Your task to perform on an android device: Go to settings Image 0: 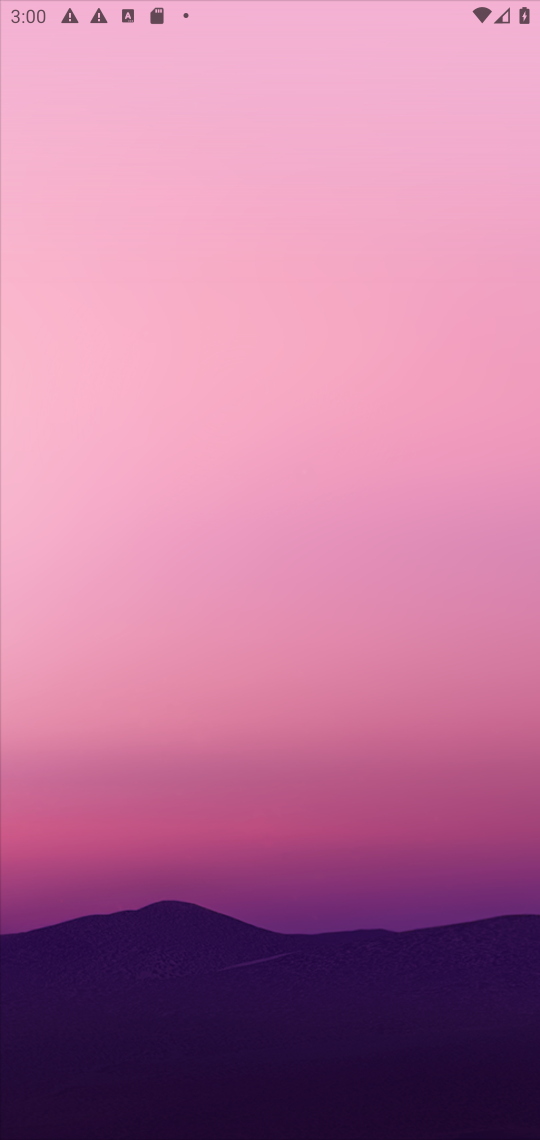
Step 0: click (299, 55)
Your task to perform on an android device: Go to settings Image 1: 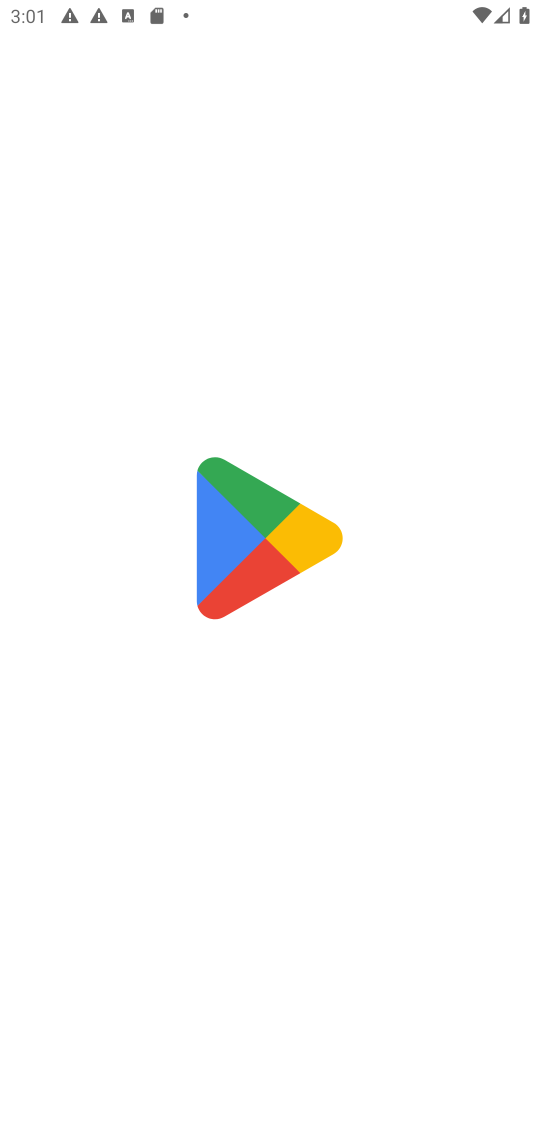
Step 1: press back button
Your task to perform on an android device: Go to settings Image 2: 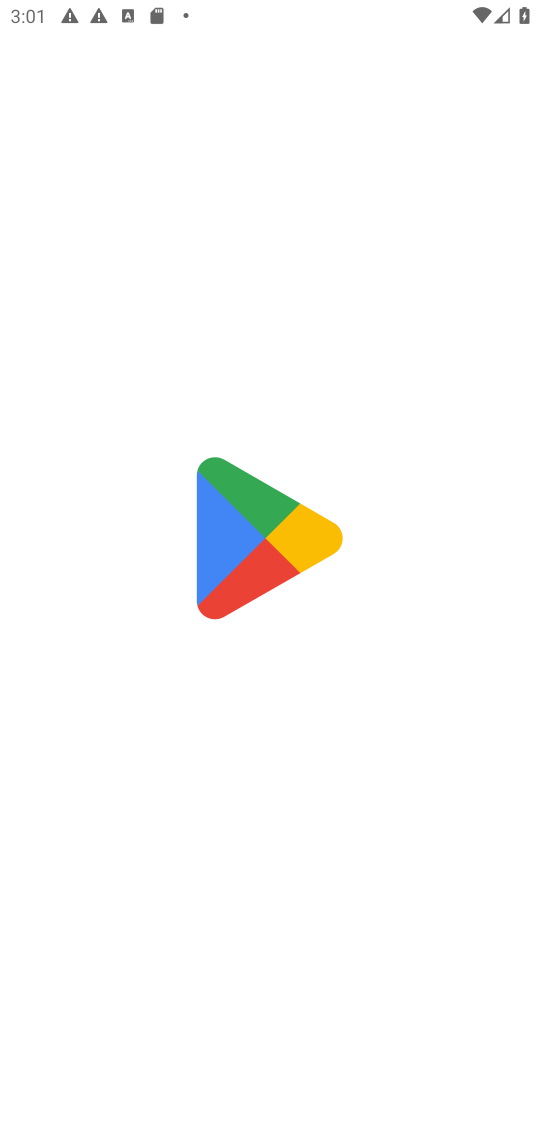
Step 2: press home button
Your task to perform on an android device: Go to settings Image 3: 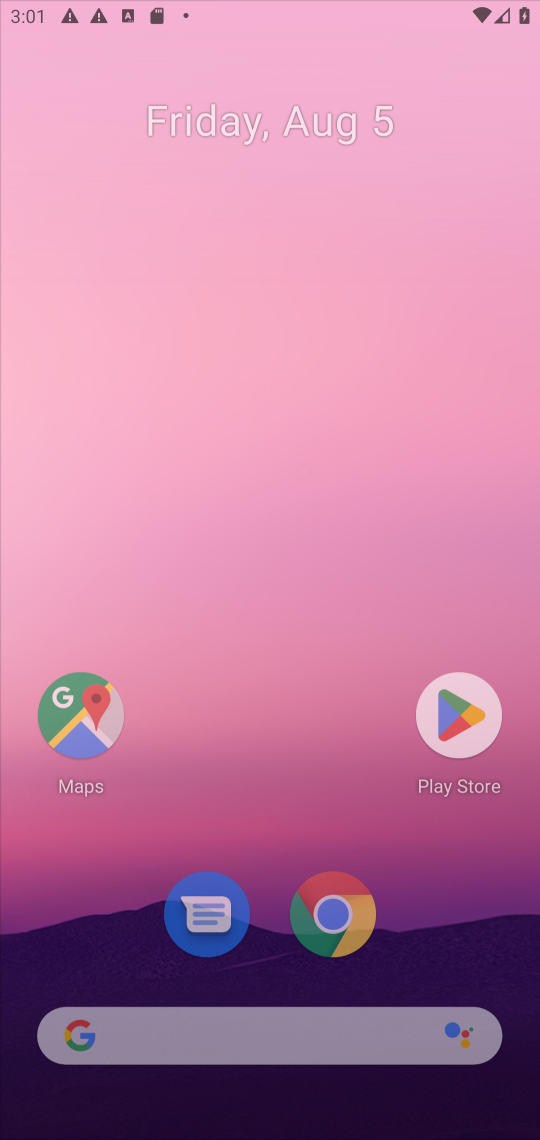
Step 3: press home button
Your task to perform on an android device: Go to settings Image 4: 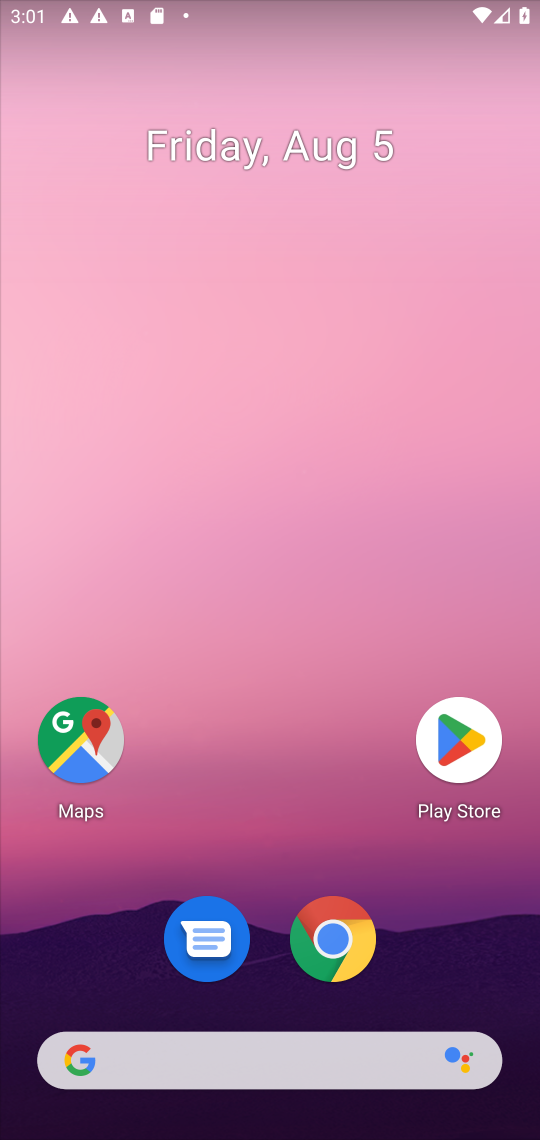
Step 4: drag from (272, 651) to (167, 3)
Your task to perform on an android device: Go to settings Image 5: 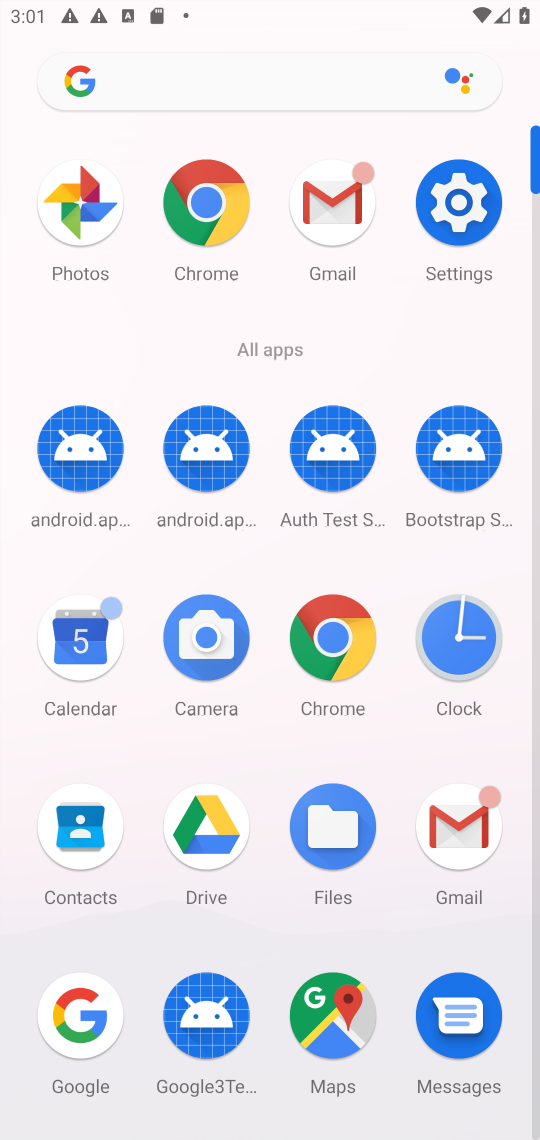
Step 5: click (464, 198)
Your task to perform on an android device: Go to settings Image 6: 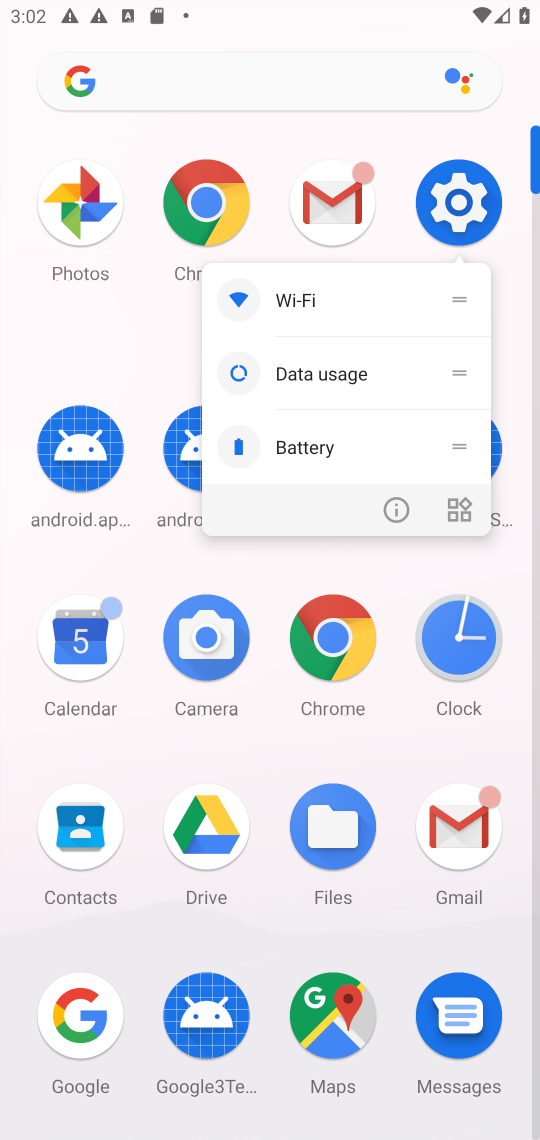
Step 6: click (455, 221)
Your task to perform on an android device: Go to settings Image 7: 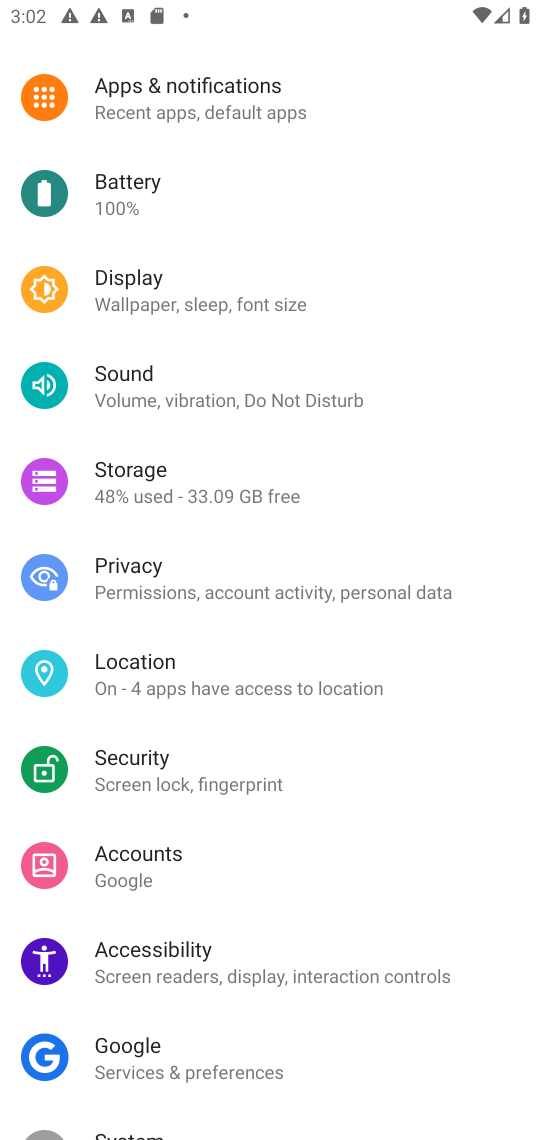
Step 7: task complete